Your task to perform on an android device: Search for the Nintendo Switch. Image 0: 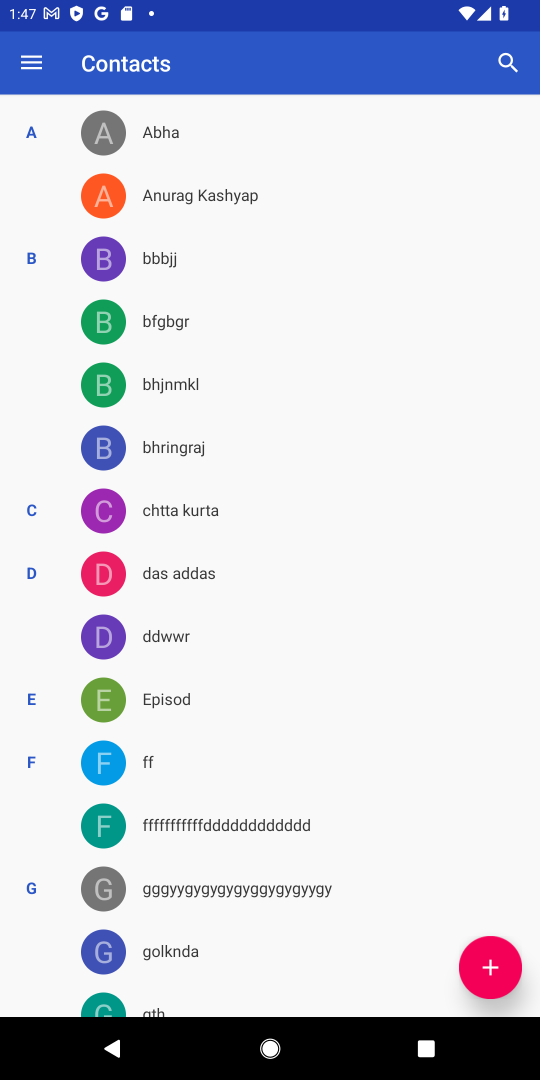
Step 0: press home button
Your task to perform on an android device: Search for the Nintendo Switch. Image 1: 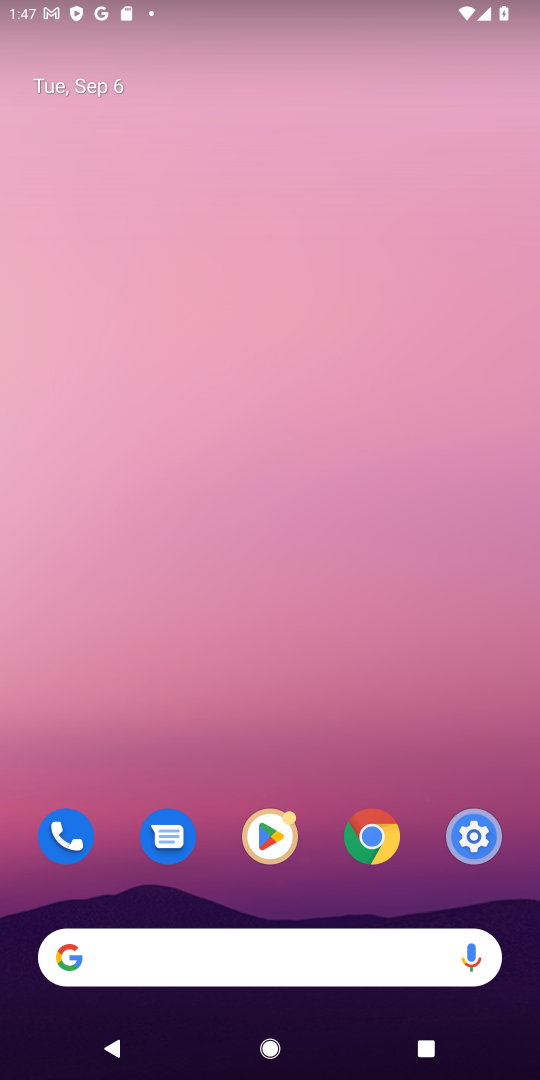
Step 1: click (171, 960)
Your task to perform on an android device: Search for the Nintendo Switch. Image 2: 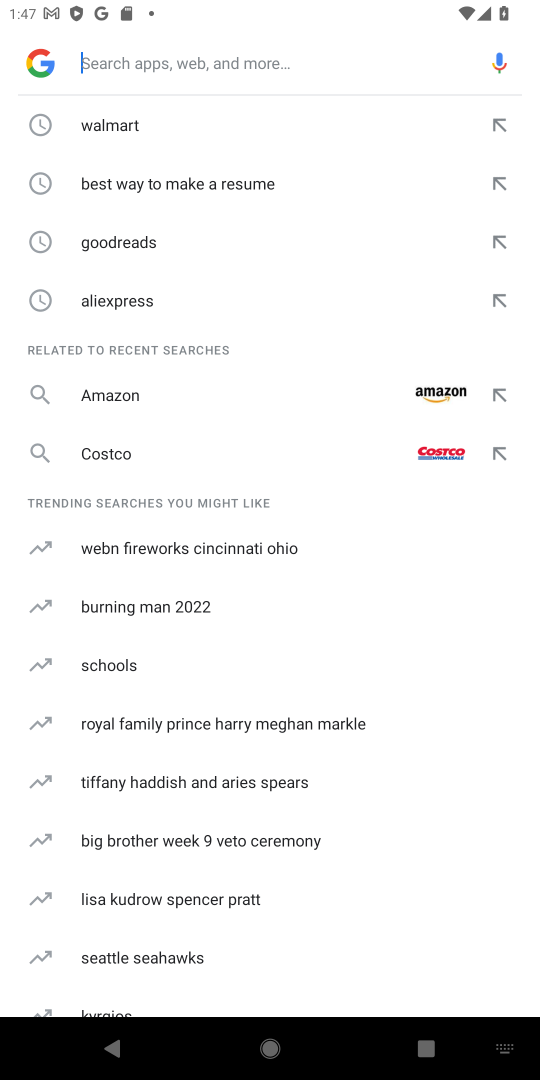
Step 2: type "nintendo switch"
Your task to perform on an android device: Search for the Nintendo Switch. Image 3: 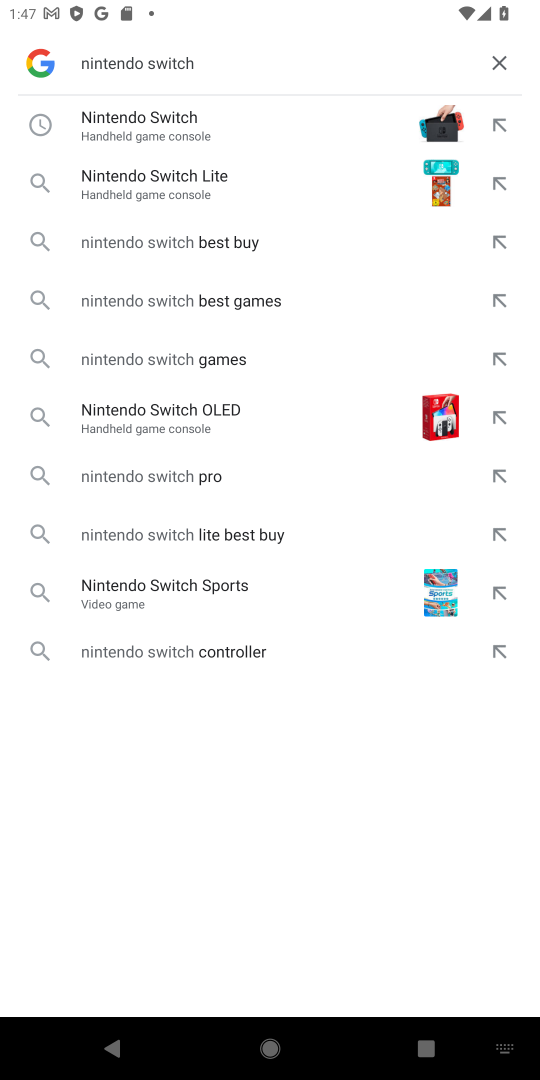
Step 3: click (161, 128)
Your task to perform on an android device: Search for the Nintendo Switch. Image 4: 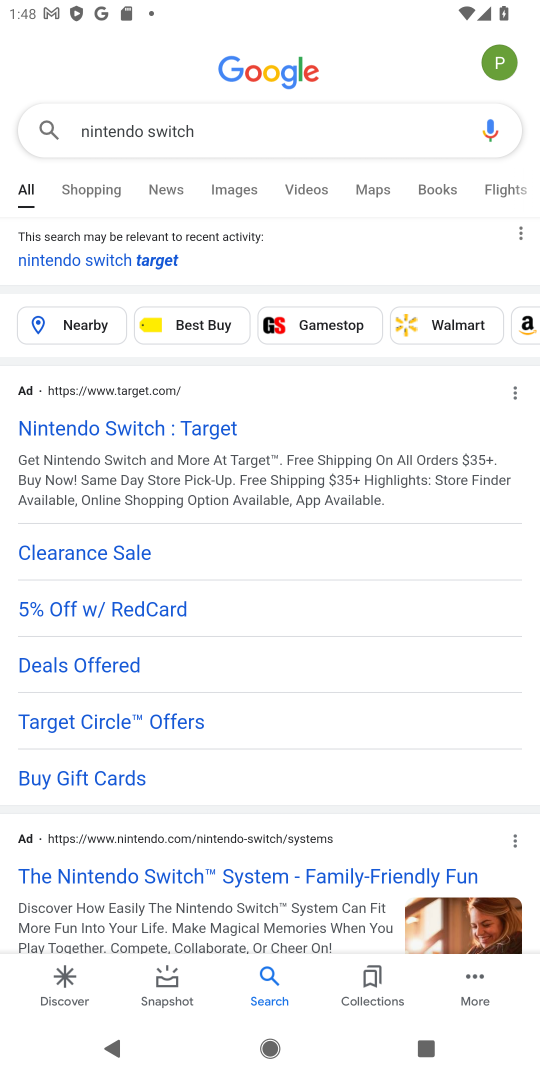
Step 4: task complete